Your task to perform on an android device: Go to battery settings Image 0: 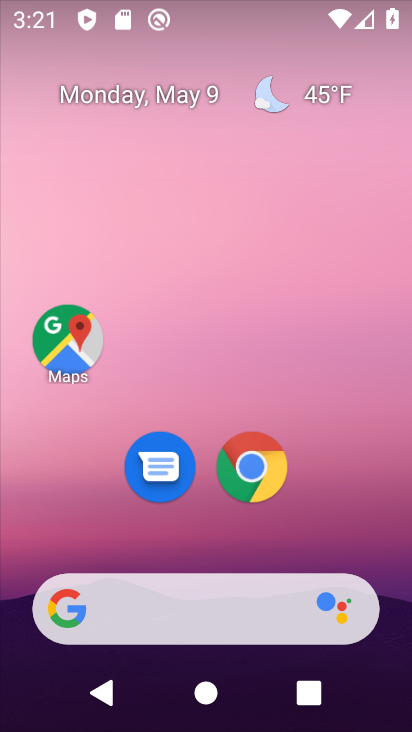
Step 0: drag from (331, 505) to (377, 99)
Your task to perform on an android device: Go to battery settings Image 1: 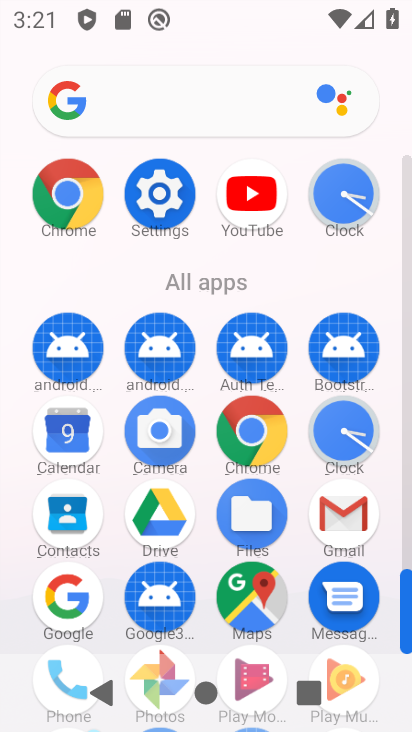
Step 1: click (169, 208)
Your task to perform on an android device: Go to battery settings Image 2: 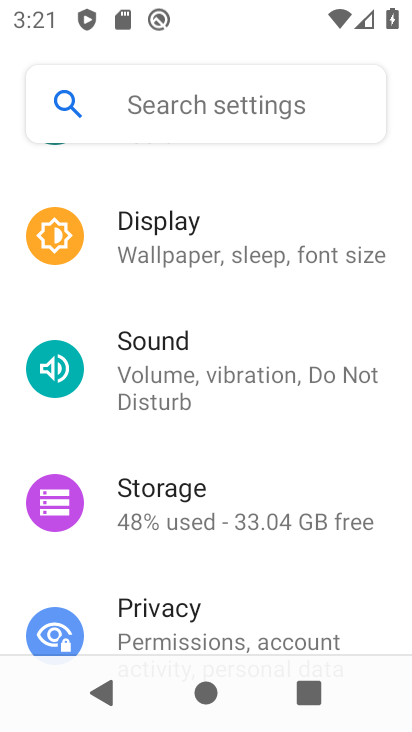
Step 2: drag from (234, 590) to (234, 238)
Your task to perform on an android device: Go to battery settings Image 3: 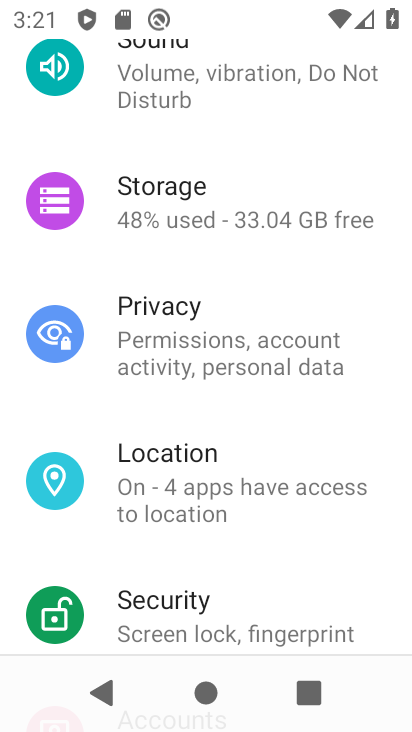
Step 3: drag from (228, 613) to (240, 261)
Your task to perform on an android device: Go to battery settings Image 4: 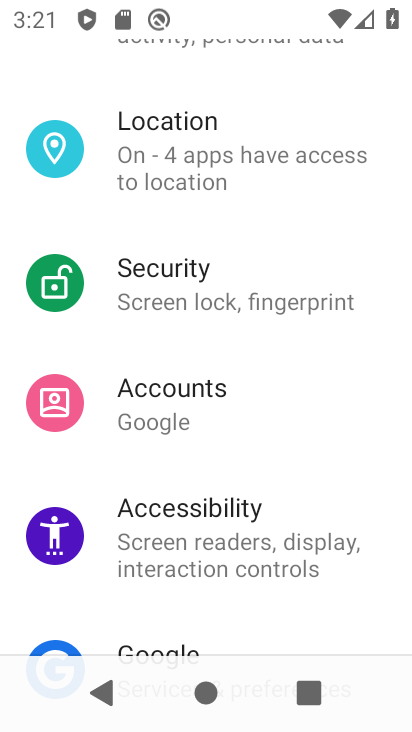
Step 4: drag from (246, 602) to (242, 515)
Your task to perform on an android device: Go to battery settings Image 5: 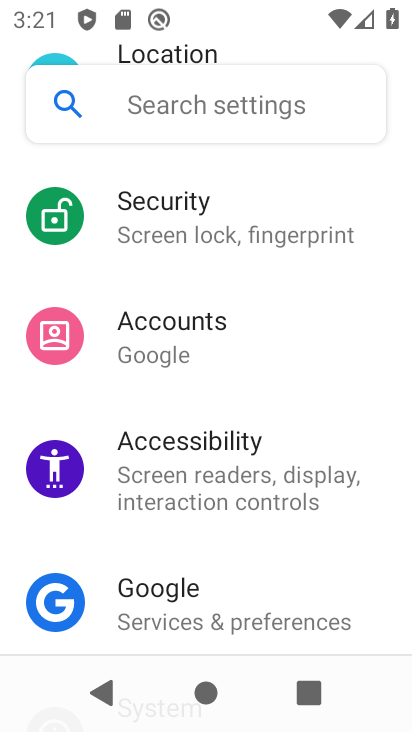
Step 5: drag from (251, 332) to (233, 523)
Your task to perform on an android device: Go to battery settings Image 6: 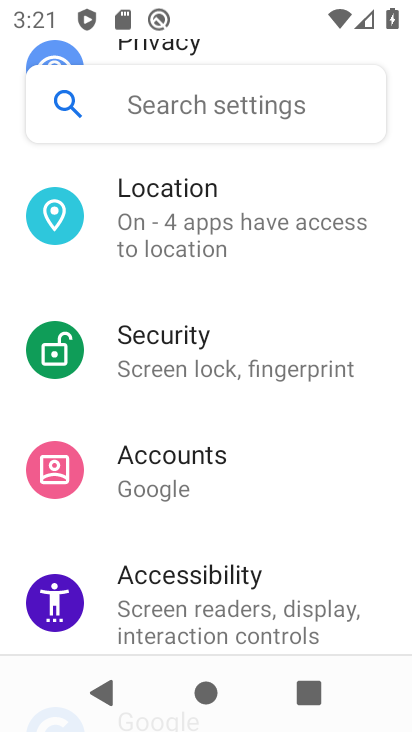
Step 6: drag from (224, 236) to (208, 509)
Your task to perform on an android device: Go to battery settings Image 7: 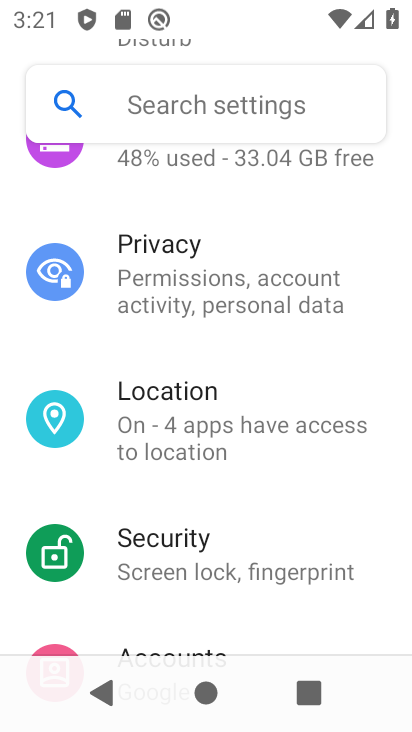
Step 7: drag from (241, 251) to (229, 583)
Your task to perform on an android device: Go to battery settings Image 8: 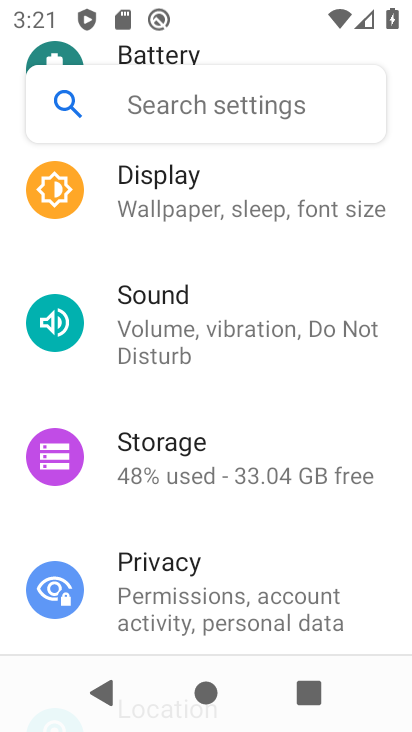
Step 8: drag from (270, 233) to (256, 516)
Your task to perform on an android device: Go to battery settings Image 9: 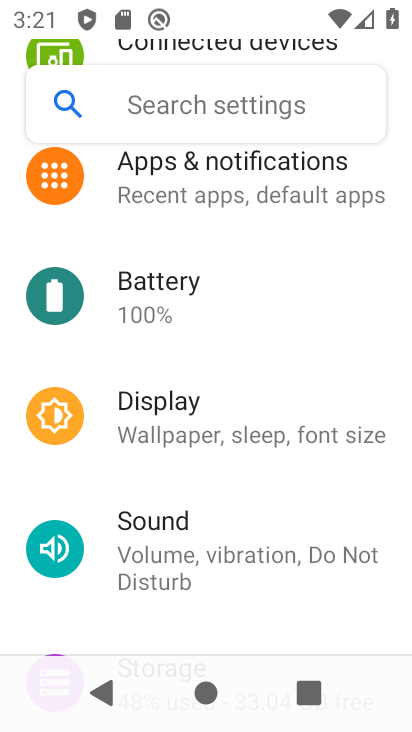
Step 9: click (212, 283)
Your task to perform on an android device: Go to battery settings Image 10: 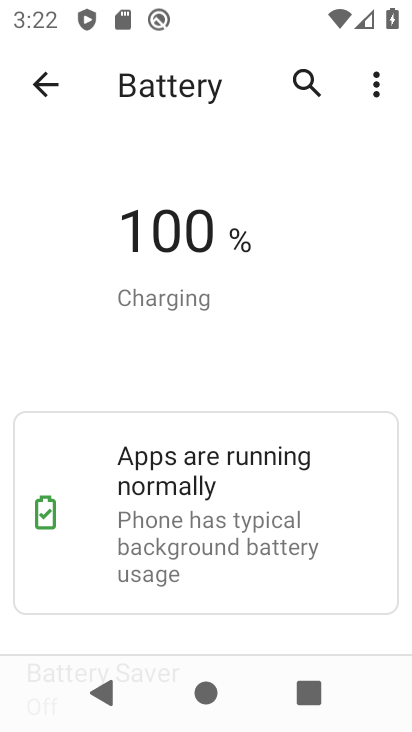
Step 10: task complete